Your task to perform on an android device: Search for Mexican restaurants on Maps Image 0: 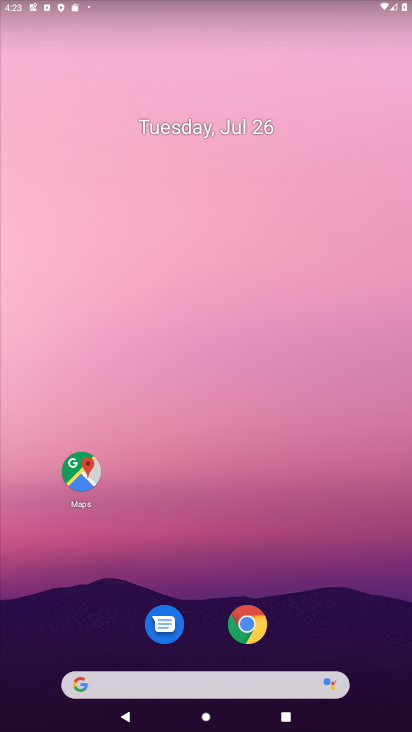
Step 0: drag from (283, 679) to (297, 2)
Your task to perform on an android device: Search for Mexican restaurants on Maps Image 1: 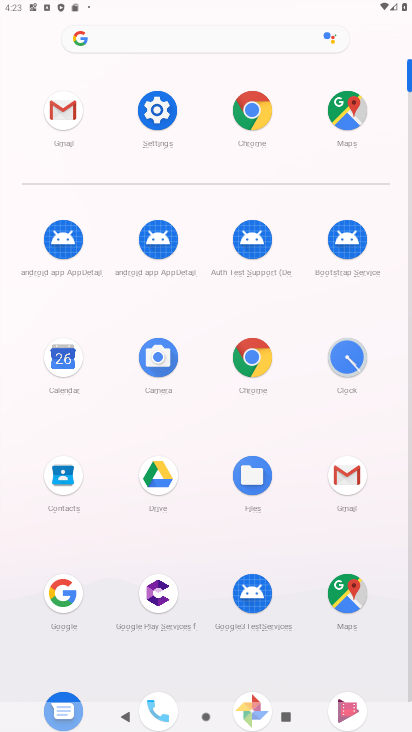
Step 1: click (360, 598)
Your task to perform on an android device: Search for Mexican restaurants on Maps Image 2: 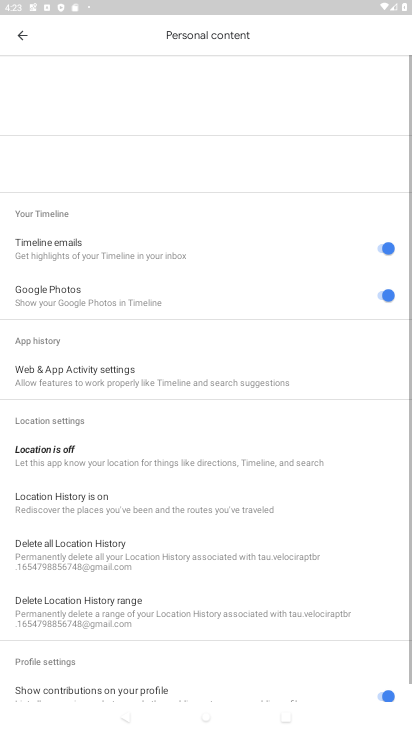
Step 2: press back button
Your task to perform on an android device: Search for Mexican restaurants on Maps Image 3: 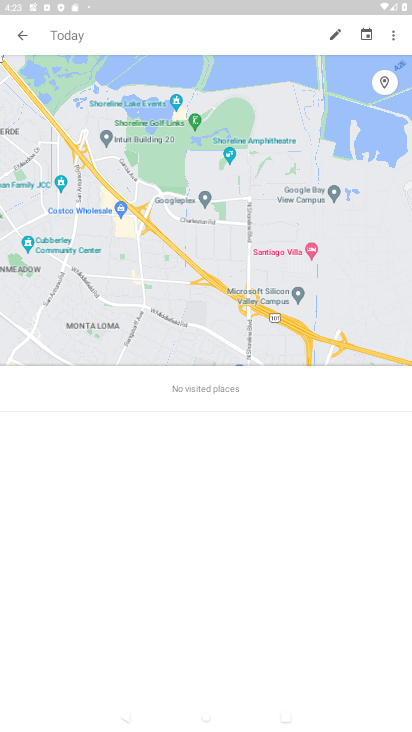
Step 3: press back button
Your task to perform on an android device: Search for Mexican restaurants on Maps Image 4: 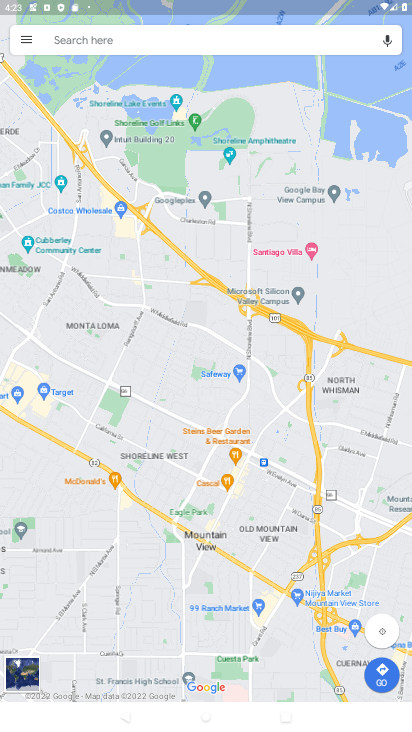
Step 4: click (199, 28)
Your task to perform on an android device: Search for Mexican restaurants on Maps Image 5: 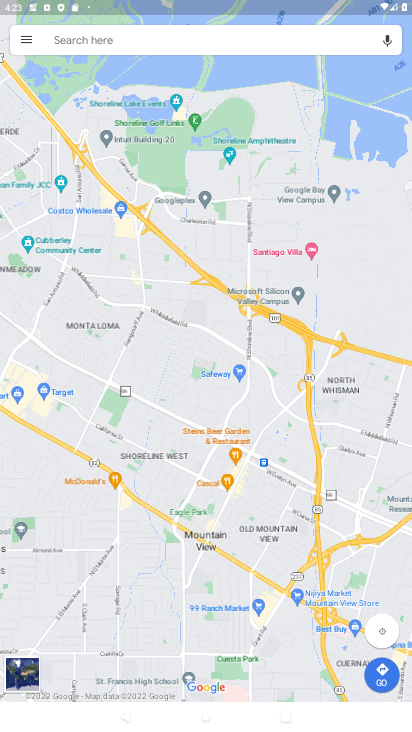
Step 5: click (199, 28)
Your task to perform on an android device: Search for Mexican restaurants on Maps Image 6: 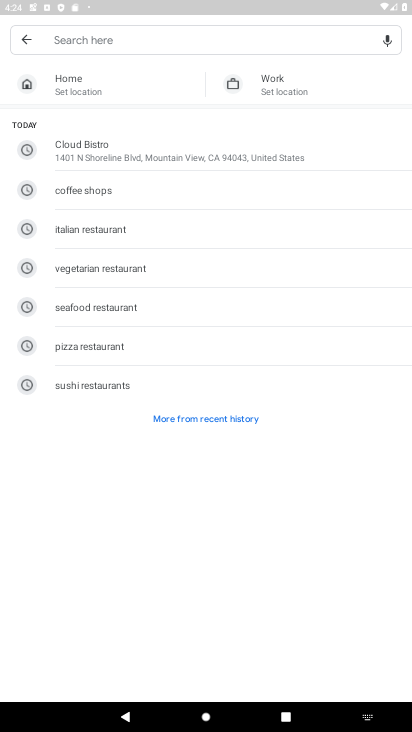
Step 6: type "mexican restaurant"
Your task to perform on an android device: Search for Mexican restaurants on Maps Image 7: 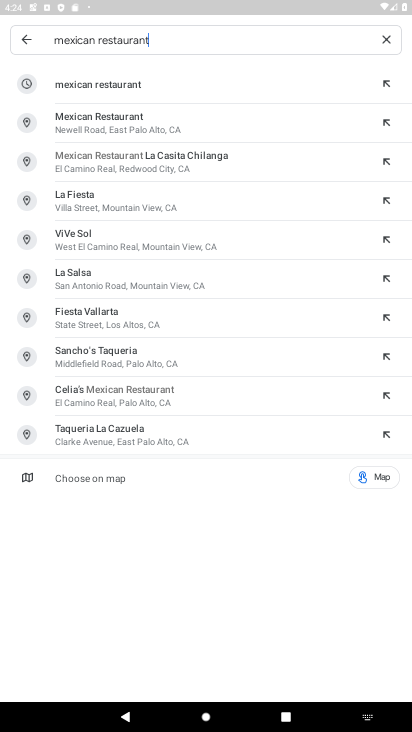
Step 7: click (95, 93)
Your task to perform on an android device: Search for Mexican restaurants on Maps Image 8: 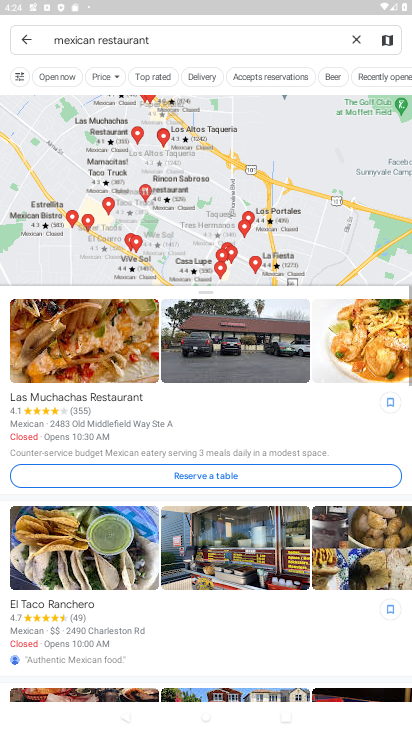
Step 8: task complete